Your task to perform on an android device: turn on airplane mode Image 0: 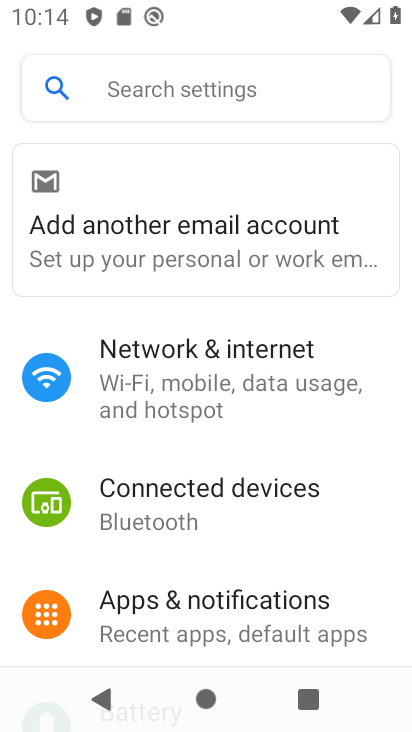
Step 0: click (230, 364)
Your task to perform on an android device: turn on airplane mode Image 1: 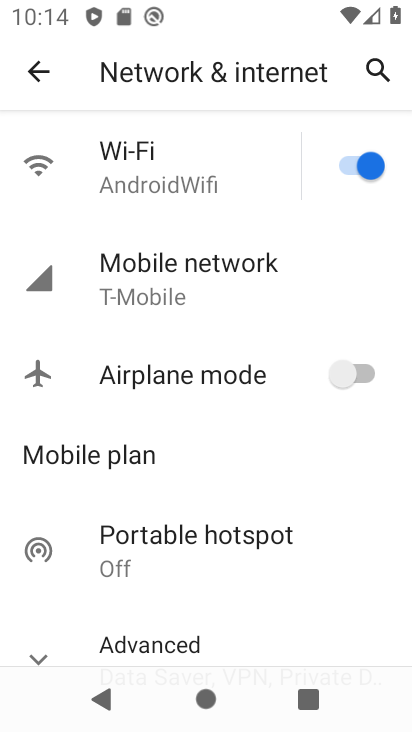
Step 1: click (368, 358)
Your task to perform on an android device: turn on airplane mode Image 2: 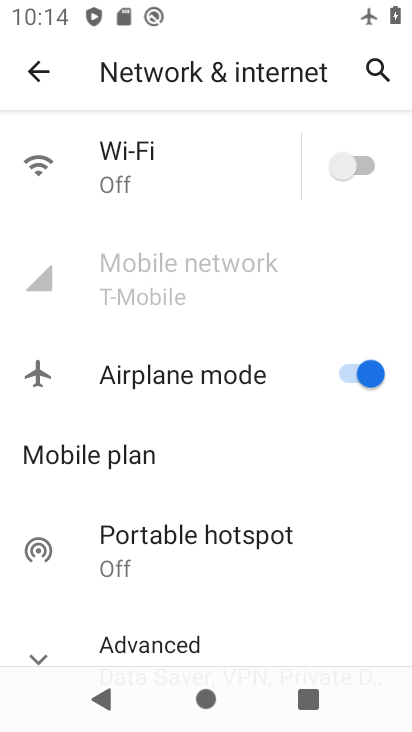
Step 2: task complete